Your task to perform on an android device: remove spam from my inbox in the gmail app Image 0: 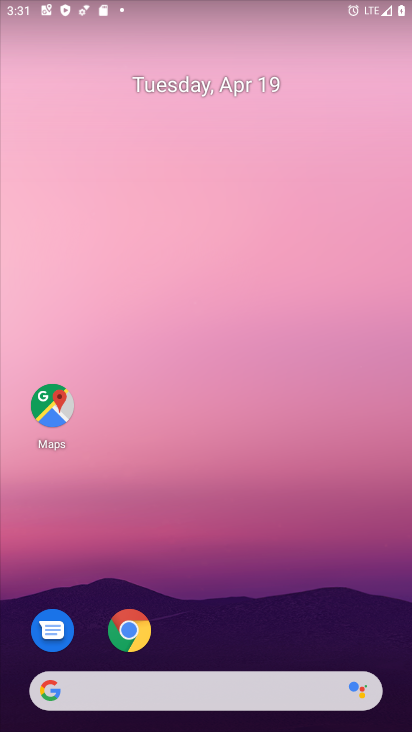
Step 0: drag from (221, 705) to (196, 155)
Your task to perform on an android device: remove spam from my inbox in the gmail app Image 1: 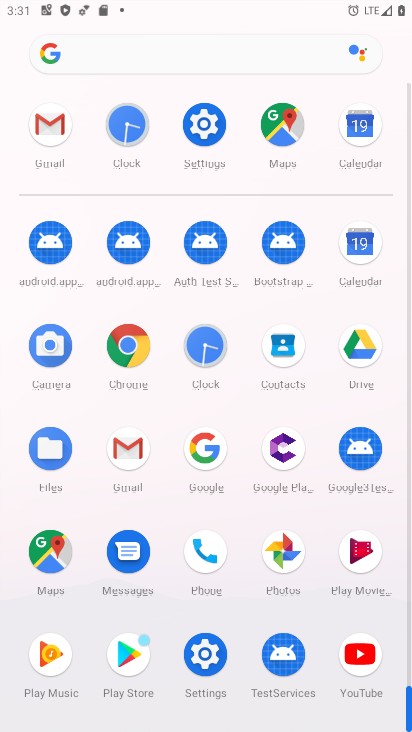
Step 1: click (53, 122)
Your task to perform on an android device: remove spam from my inbox in the gmail app Image 2: 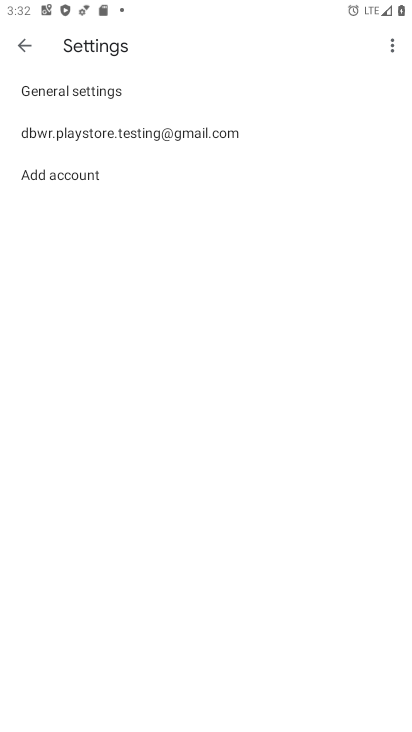
Step 2: click (98, 132)
Your task to perform on an android device: remove spam from my inbox in the gmail app Image 3: 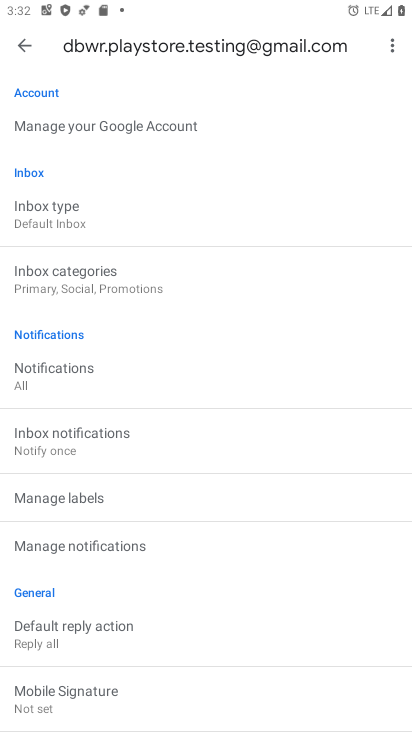
Step 3: click (22, 39)
Your task to perform on an android device: remove spam from my inbox in the gmail app Image 4: 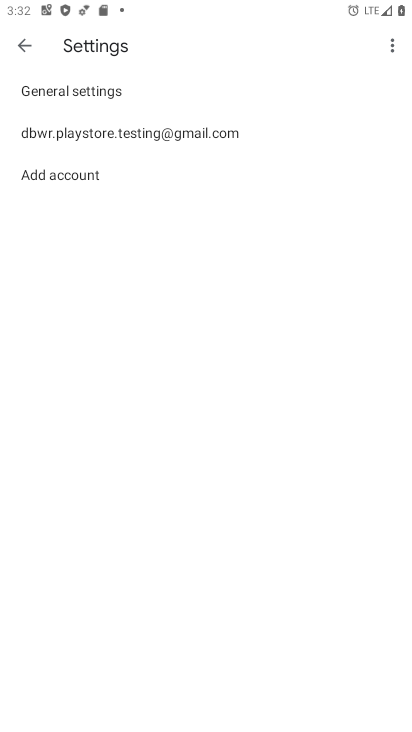
Step 4: click (95, 134)
Your task to perform on an android device: remove spam from my inbox in the gmail app Image 5: 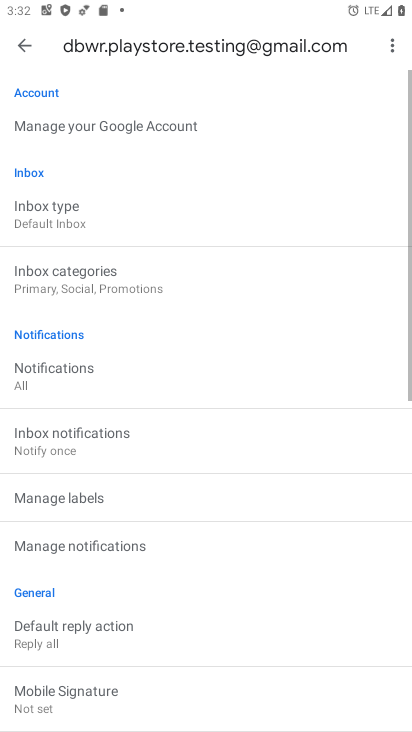
Step 5: drag from (128, 110) to (145, 600)
Your task to perform on an android device: remove spam from my inbox in the gmail app Image 6: 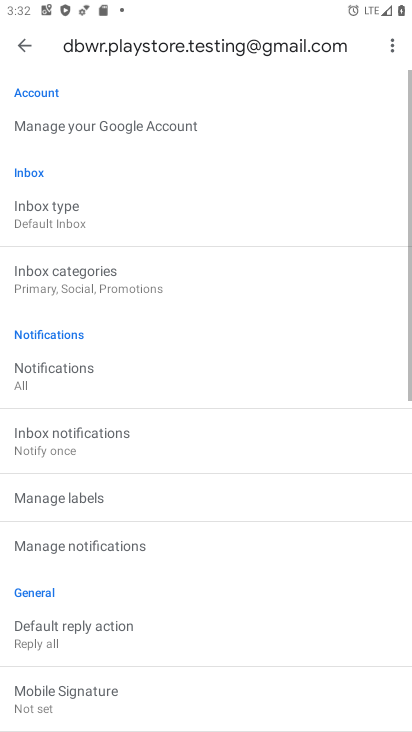
Step 6: click (18, 38)
Your task to perform on an android device: remove spam from my inbox in the gmail app Image 7: 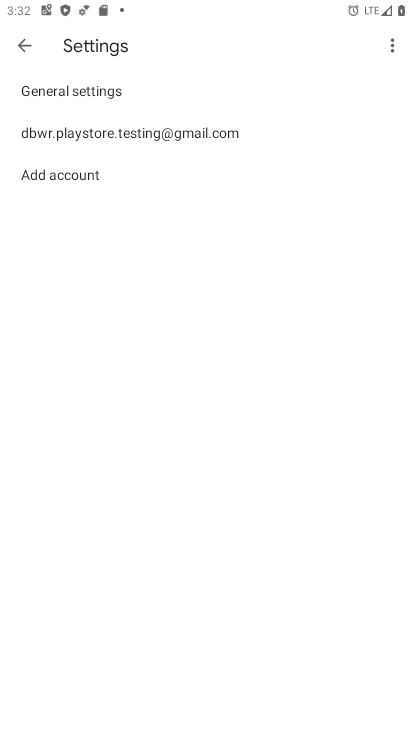
Step 7: click (27, 43)
Your task to perform on an android device: remove spam from my inbox in the gmail app Image 8: 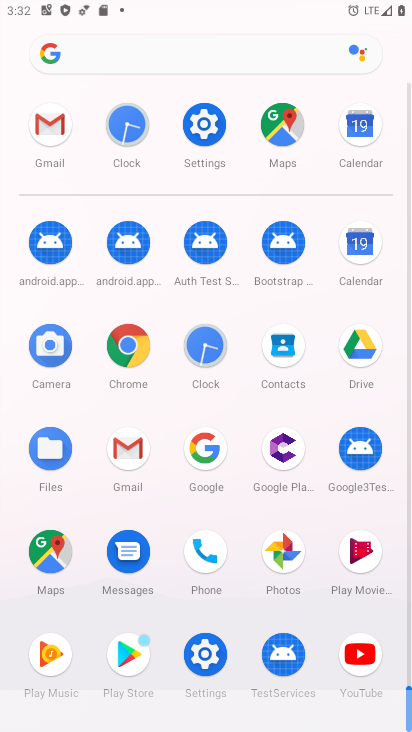
Step 8: click (53, 125)
Your task to perform on an android device: remove spam from my inbox in the gmail app Image 9: 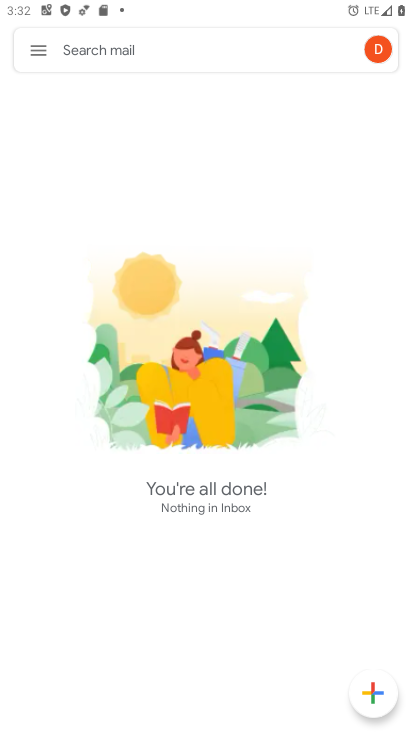
Step 9: task complete